Your task to perform on an android device: Search for Italian restaurants on Maps Image 0: 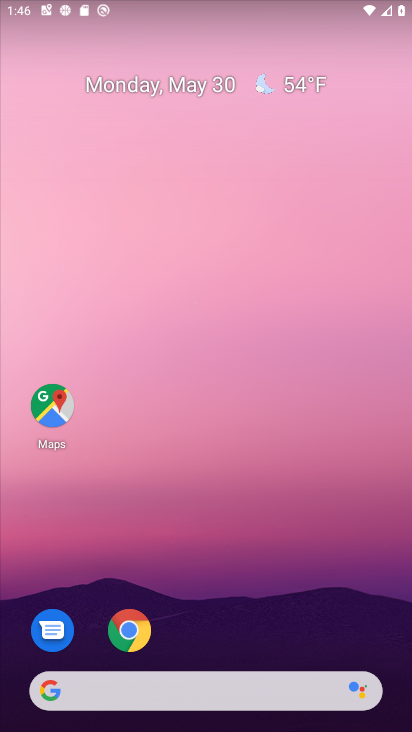
Step 0: press home button
Your task to perform on an android device: Search for Italian restaurants on Maps Image 1: 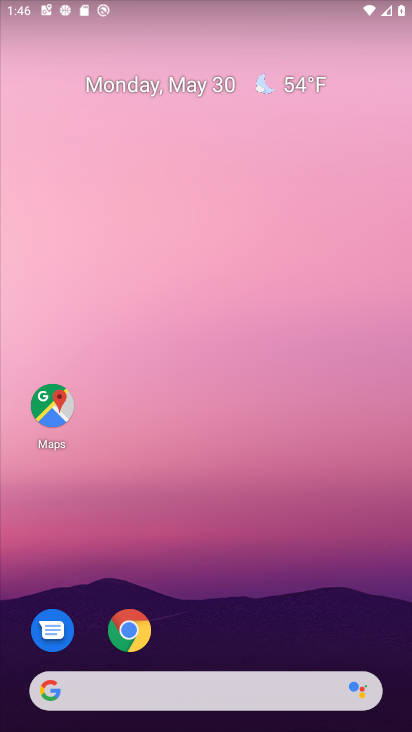
Step 1: click (59, 413)
Your task to perform on an android device: Search for Italian restaurants on Maps Image 2: 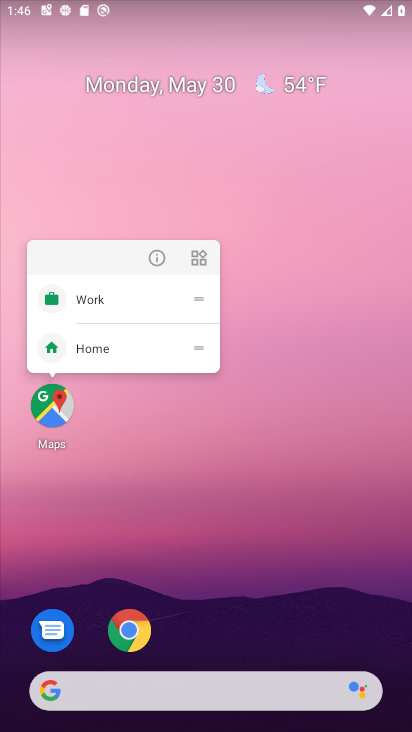
Step 2: click (50, 403)
Your task to perform on an android device: Search for Italian restaurants on Maps Image 3: 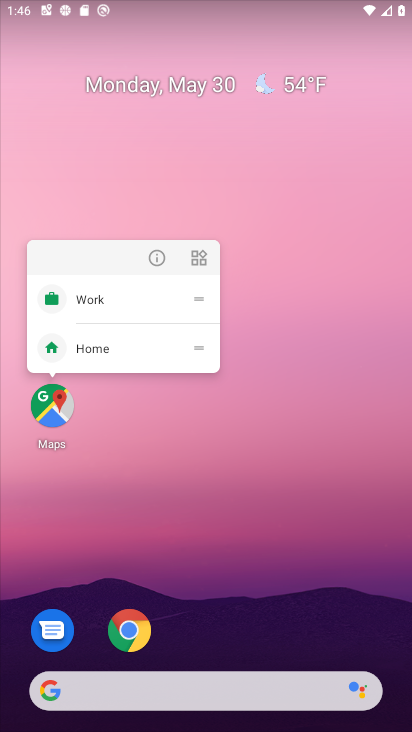
Step 3: click (47, 414)
Your task to perform on an android device: Search for Italian restaurants on Maps Image 4: 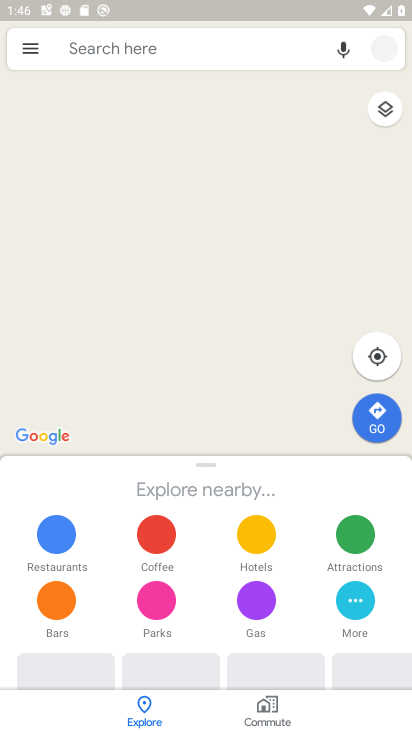
Step 4: click (205, 43)
Your task to perform on an android device: Search for Italian restaurants on Maps Image 5: 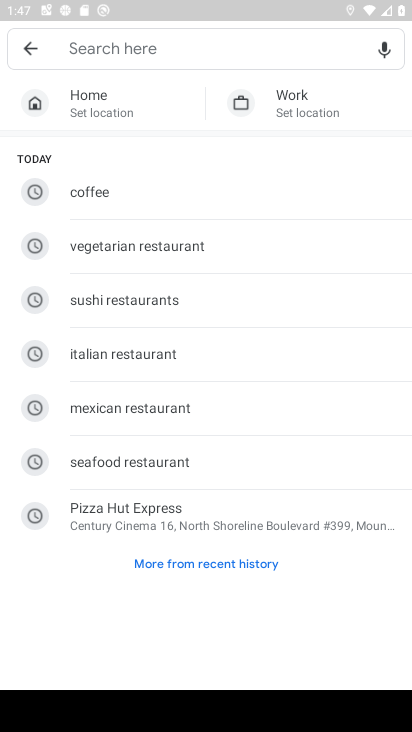
Step 5: click (119, 356)
Your task to perform on an android device: Search for Italian restaurants on Maps Image 6: 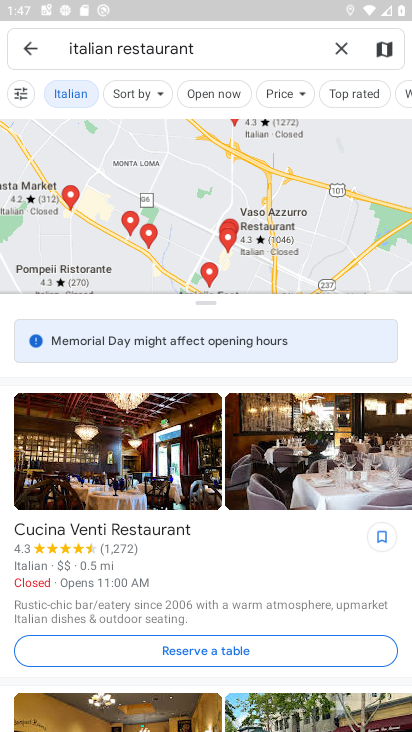
Step 6: task complete